Your task to perform on an android device: Open the web browser Image 0: 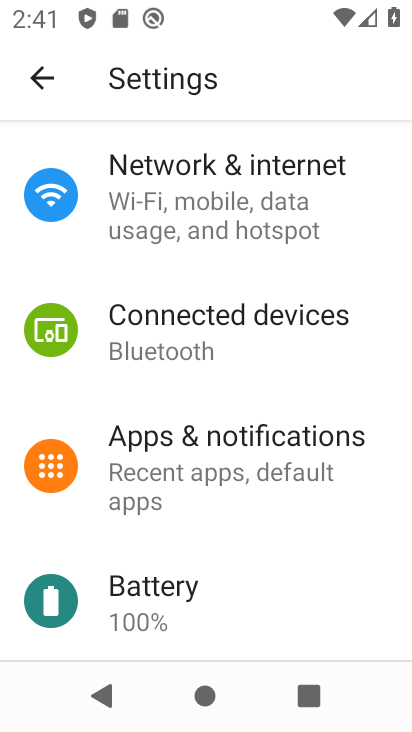
Step 0: press back button
Your task to perform on an android device: Open the web browser Image 1: 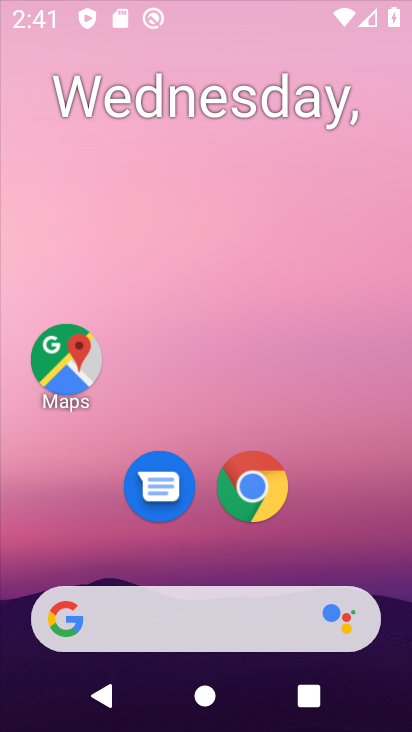
Step 1: press back button
Your task to perform on an android device: Open the web browser Image 2: 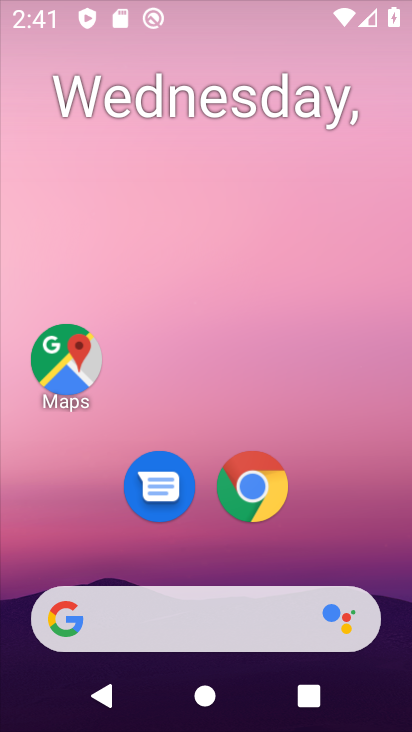
Step 2: click (263, 499)
Your task to perform on an android device: Open the web browser Image 3: 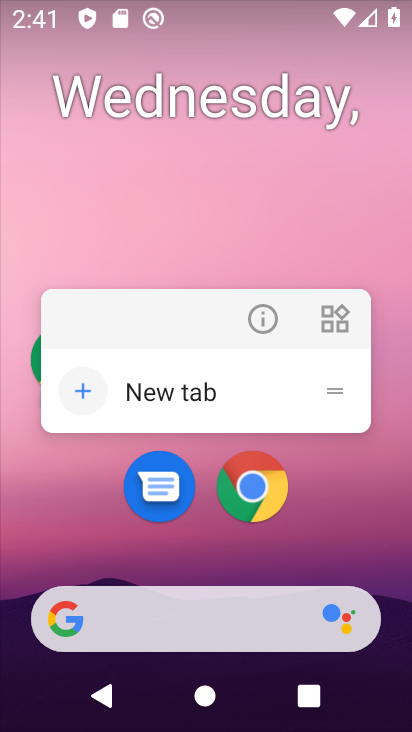
Step 3: click (253, 492)
Your task to perform on an android device: Open the web browser Image 4: 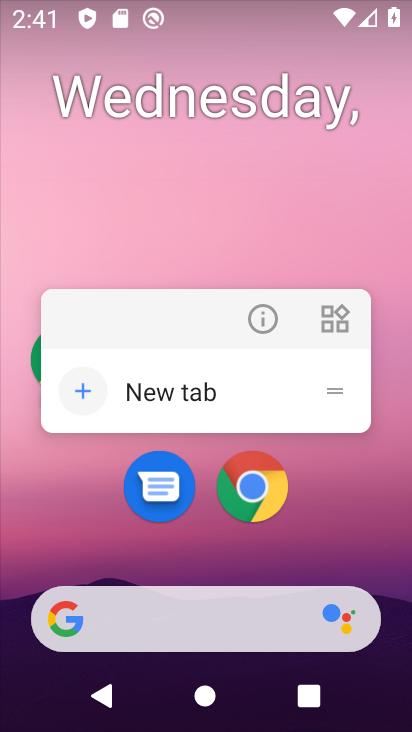
Step 4: click (250, 490)
Your task to perform on an android device: Open the web browser Image 5: 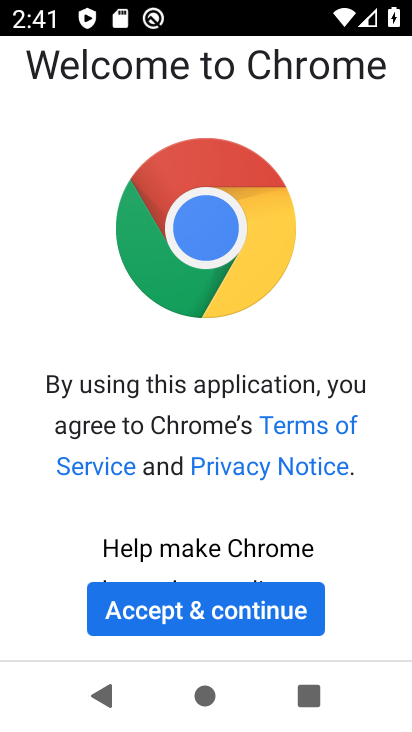
Step 5: click (216, 617)
Your task to perform on an android device: Open the web browser Image 6: 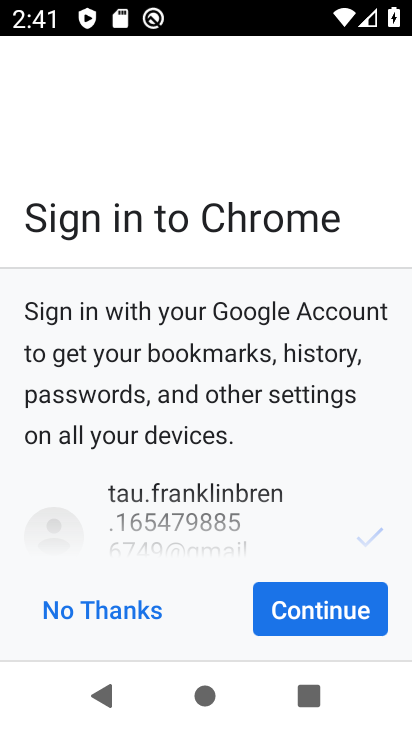
Step 6: click (278, 608)
Your task to perform on an android device: Open the web browser Image 7: 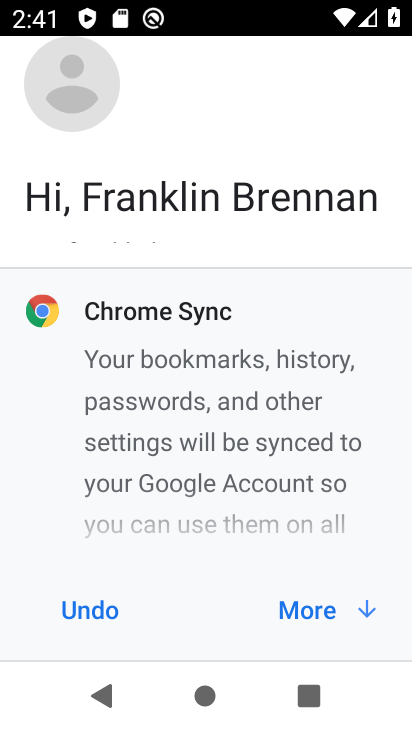
Step 7: click (309, 606)
Your task to perform on an android device: Open the web browser Image 8: 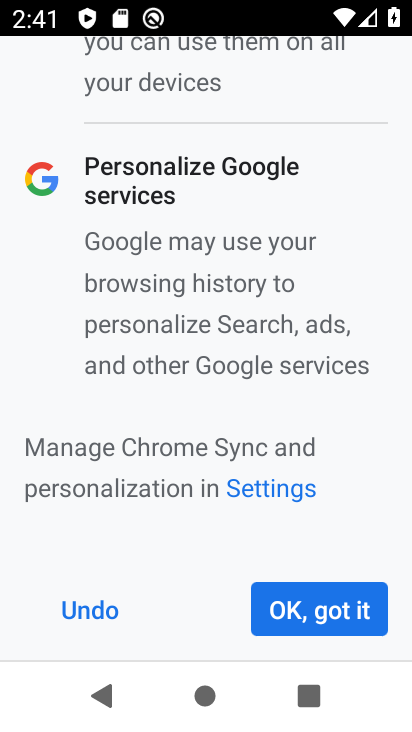
Step 8: click (309, 606)
Your task to perform on an android device: Open the web browser Image 9: 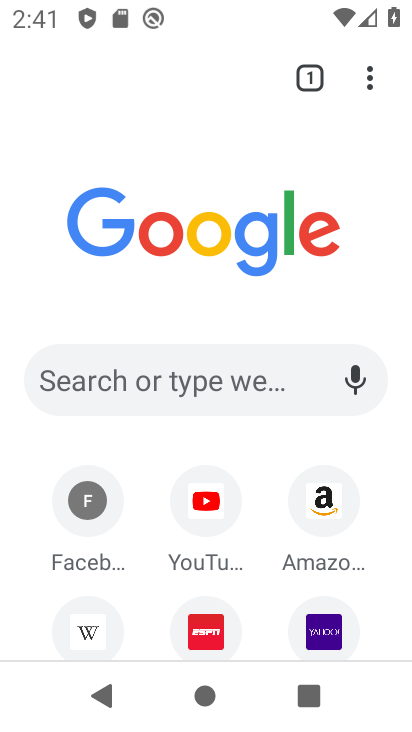
Step 9: task complete